Your task to perform on an android device: Open Reddit.com Image 0: 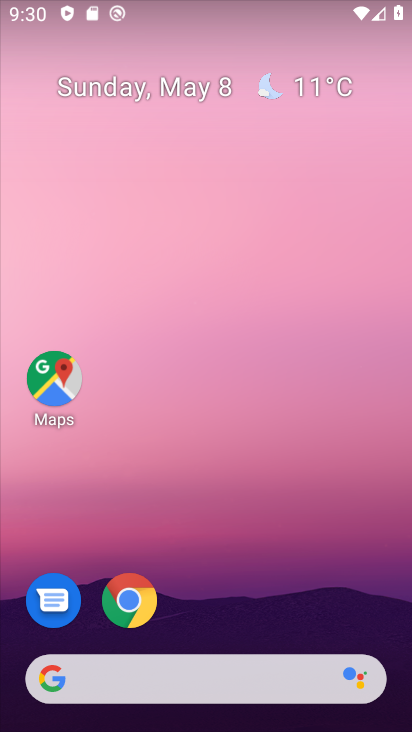
Step 0: drag from (302, 602) to (271, 3)
Your task to perform on an android device: Open Reddit.com Image 1: 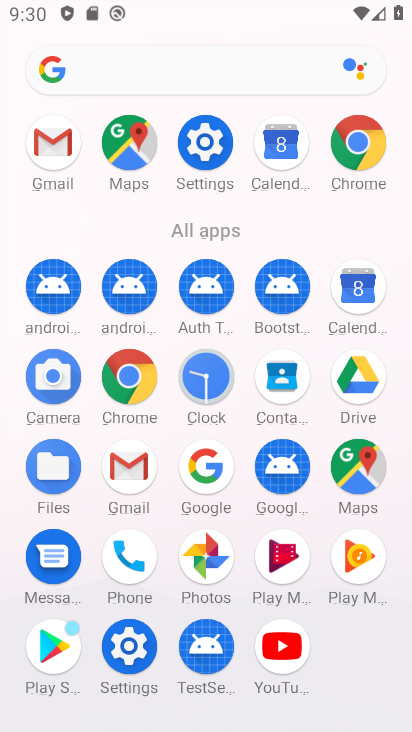
Step 1: drag from (0, 379) to (2, 257)
Your task to perform on an android device: Open Reddit.com Image 2: 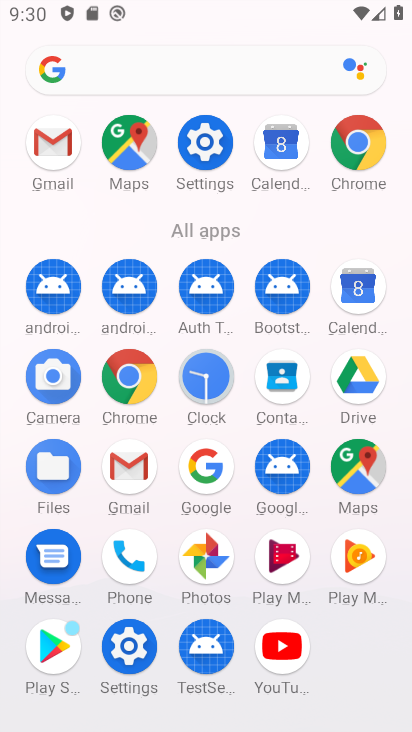
Step 2: click (364, 143)
Your task to perform on an android device: Open Reddit.com Image 3: 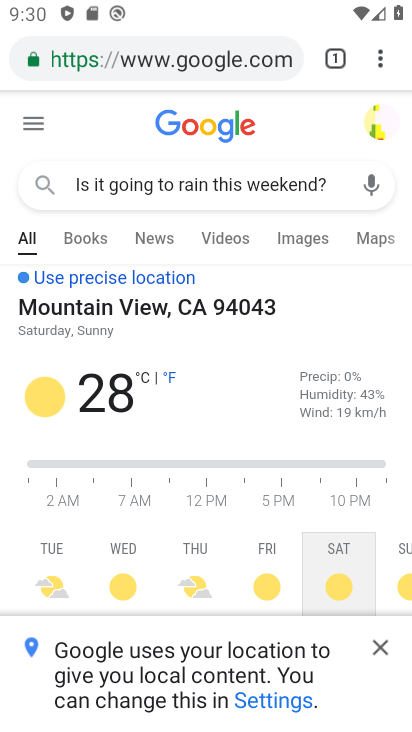
Step 3: click (139, 61)
Your task to perform on an android device: Open Reddit.com Image 4: 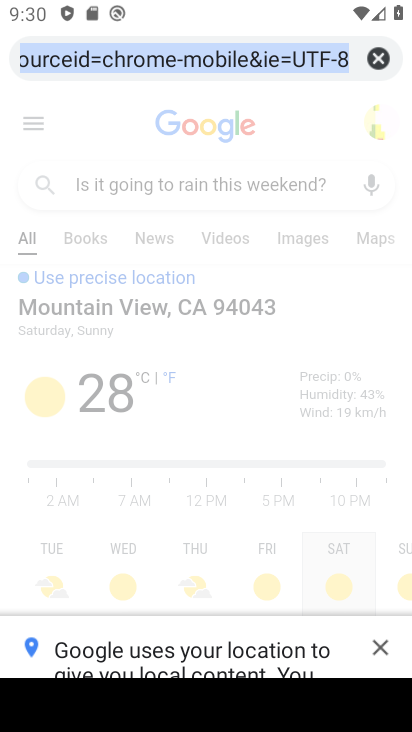
Step 4: click (376, 63)
Your task to perform on an android device: Open Reddit.com Image 5: 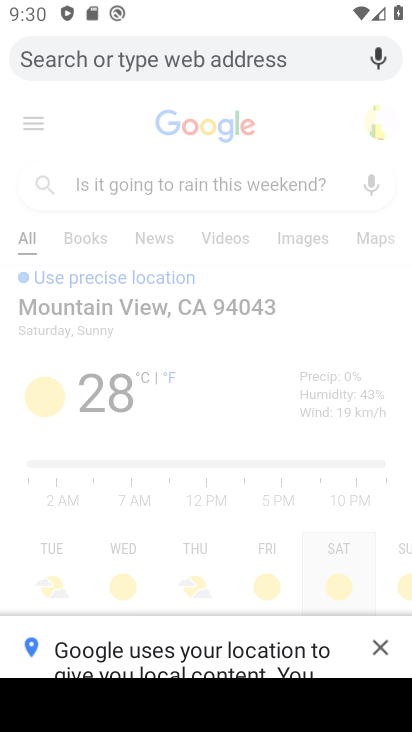
Step 5: type " Reddit.com"
Your task to perform on an android device: Open Reddit.com Image 6: 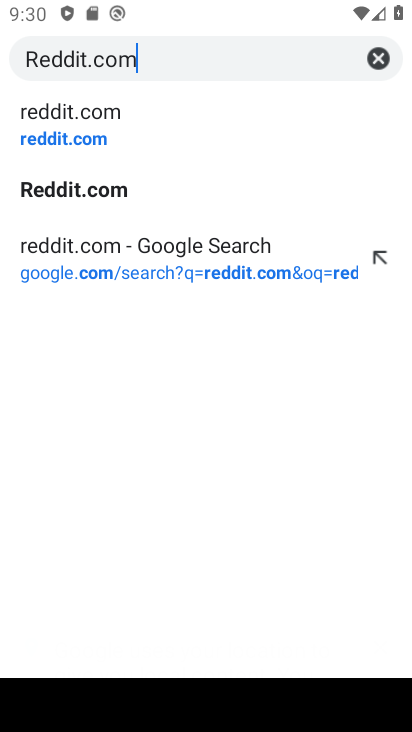
Step 6: type ""
Your task to perform on an android device: Open Reddit.com Image 7: 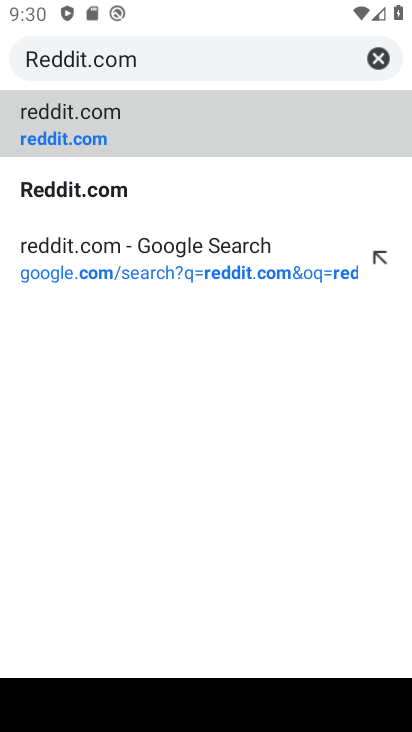
Step 7: click (277, 144)
Your task to perform on an android device: Open Reddit.com Image 8: 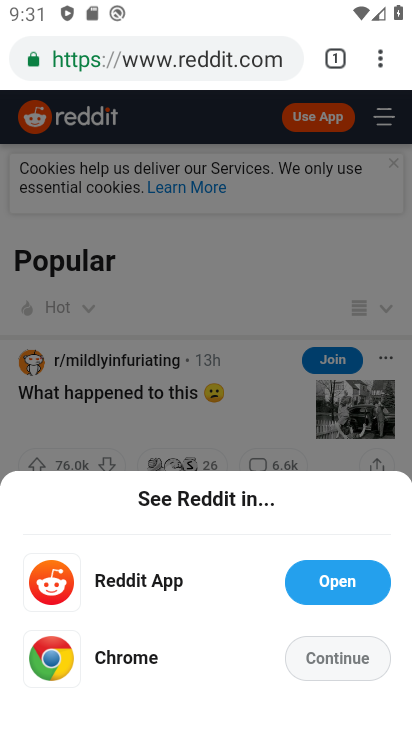
Step 8: task complete